Your task to perform on an android device: open a new tab in the chrome app Image 0: 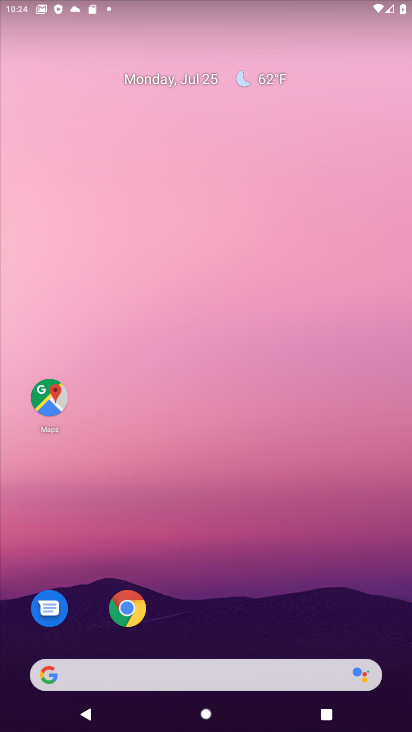
Step 0: click (137, 607)
Your task to perform on an android device: open a new tab in the chrome app Image 1: 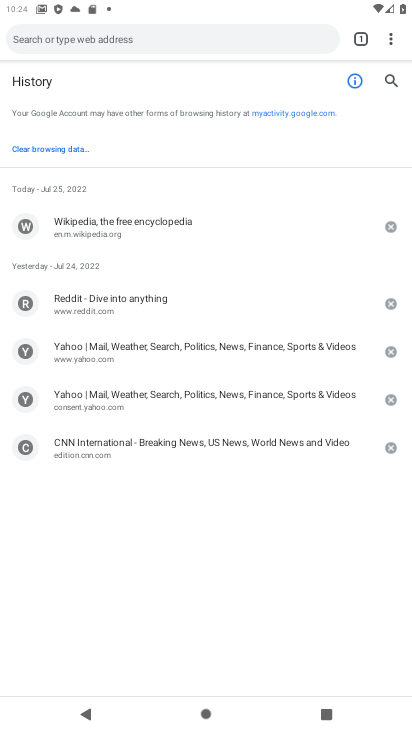
Step 1: click (395, 40)
Your task to perform on an android device: open a new tab in the chrome app Image 2: 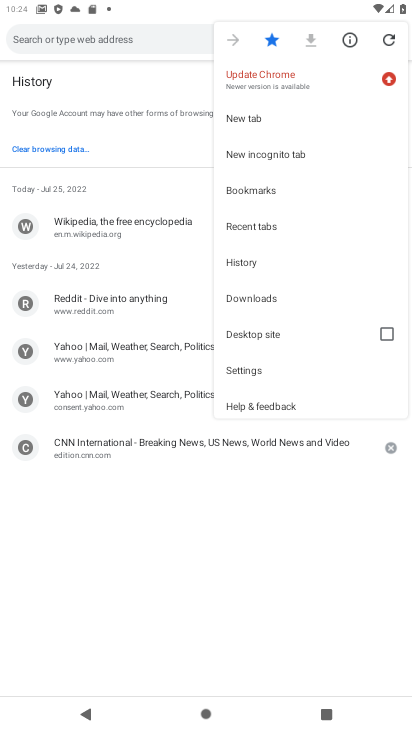
Step 2: click (266, 119)
Your task to perform on an android device: open a new tab in the chrome app Image 3: 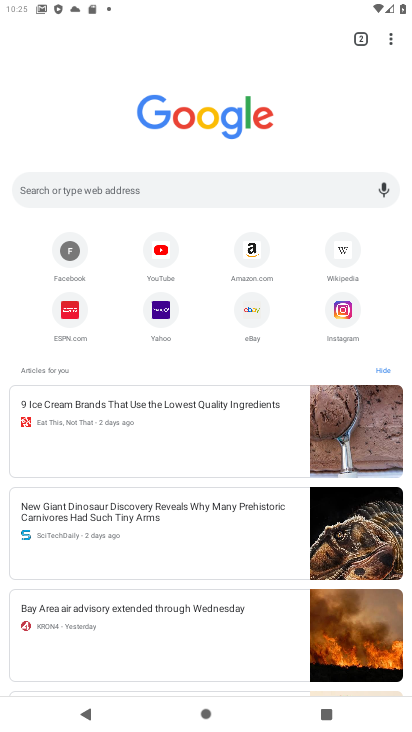
Step 3: task complete